Your task to perform on an android device: open app "Mercado Libre" Image 0: 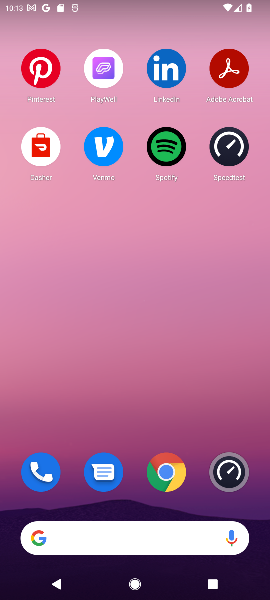
Step 0: drag from (198, 448) to (150, 30)
Your task to perform on an android device: open app "Mercado Libre" Image 1: 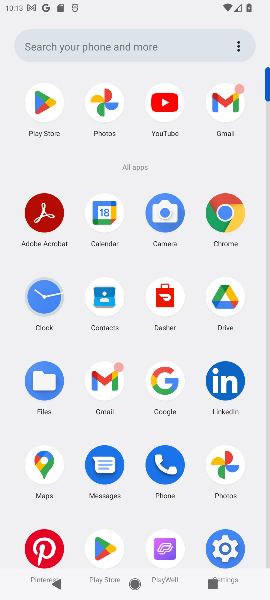
Step 1: click (96, 548)
Your task to perform on an android device: open app "Mercado Libre" Image 2: 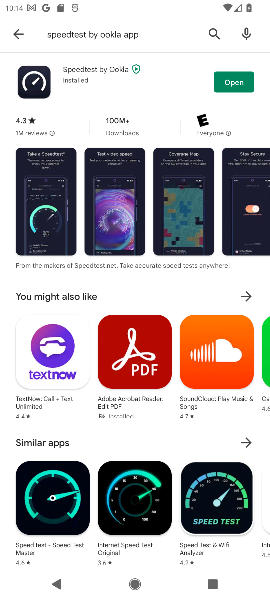
Step 2: click (219, 36)
Your task to perform on an android device: open app "Mercado Libre" Image 3: 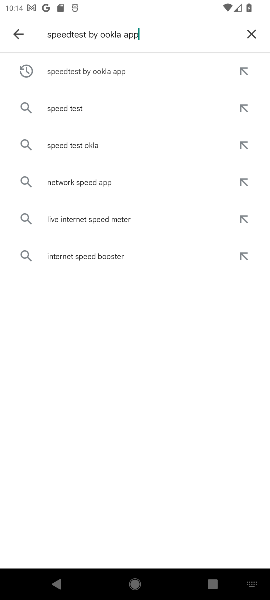
Step 3: click (255, 32)
Your task to perform on an android device: open app "Mercado Libre" Image 4: 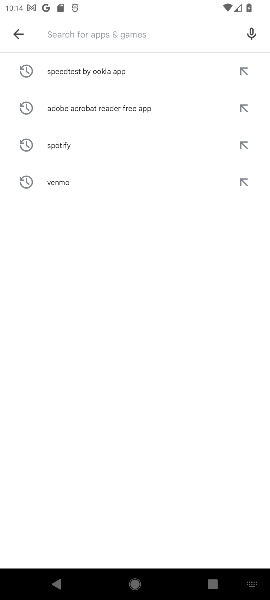
Step 4: type "mercado libre"
Your task to perform on an android device: open app "Mercado Libre" Image 5: 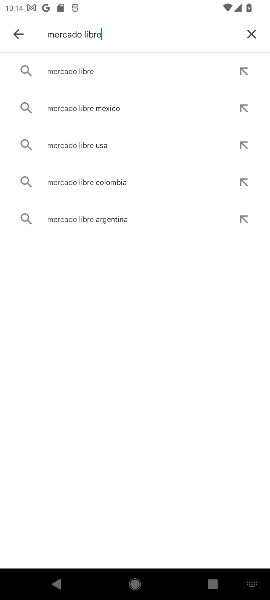
Step 5: click (110, 66)
Your task to perform on an android device: open app "Mercado Libre" Image 6: 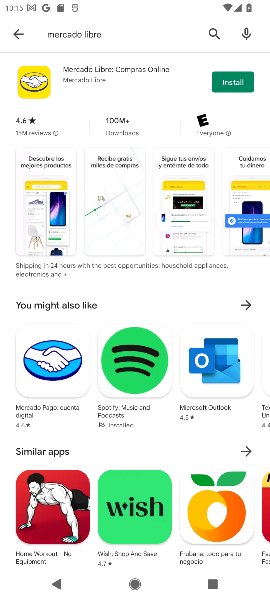
Step 6: task complete